Your task to perform on an android device: open wifi settings Image 0: 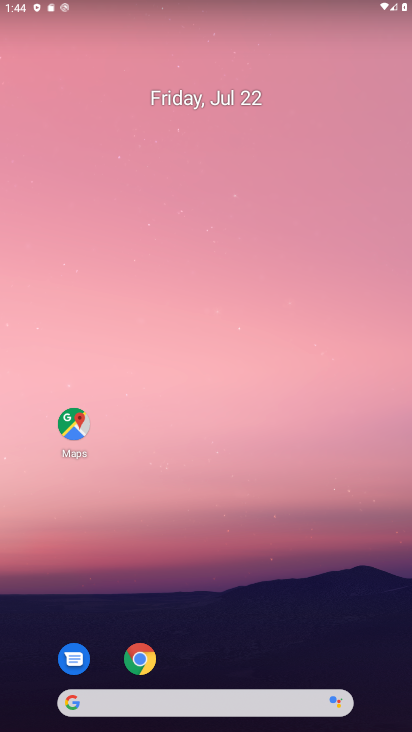
Step 0: drag from (227, 10) to (244, 482)
Your task to perform on an android device: open wifi settings Image 1: 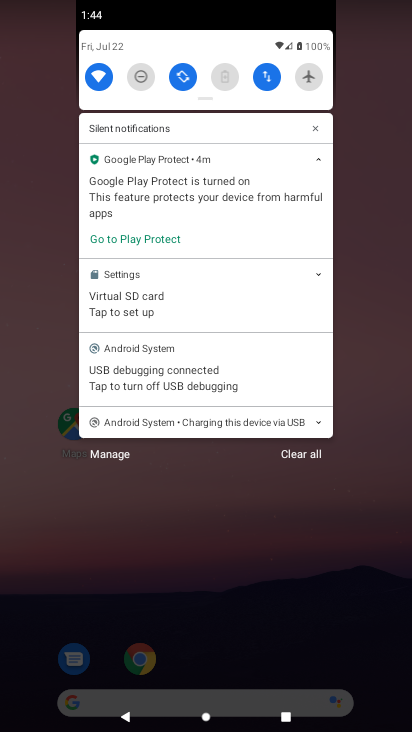
Step 1: click (94, 80)
Your task to perform on an android device: open wifi settings Image 2: 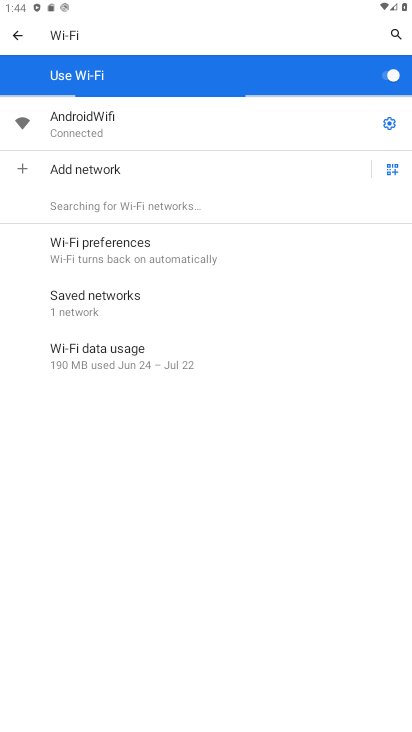
Step 2: task complete